Your task to perform on an android device: refresh tabs in the chrome app Image 0: 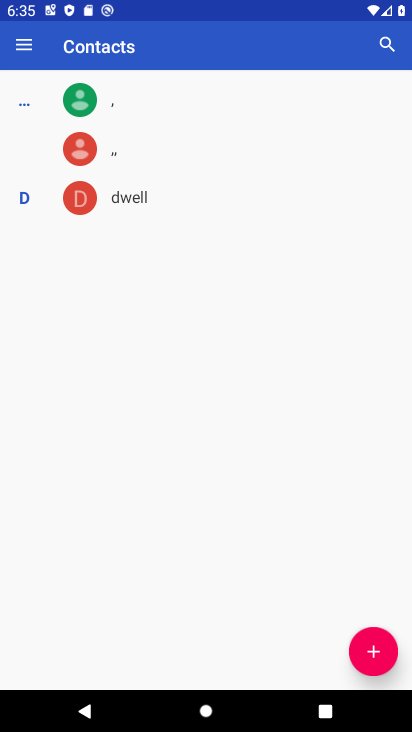
Step 0: press home button
Your task to perform on an android device: refresh tabs in the chrome app Image 1: 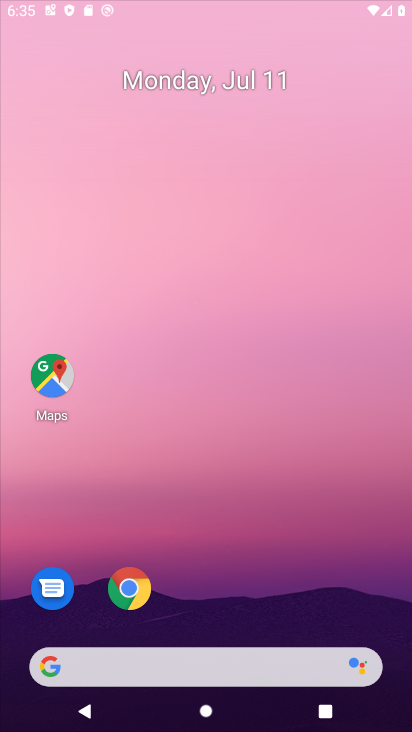
Step 1: drag from (384, 672) to (256, 1)
Your task to perform on an android device: refresh tabs in the chrome app Image 2: 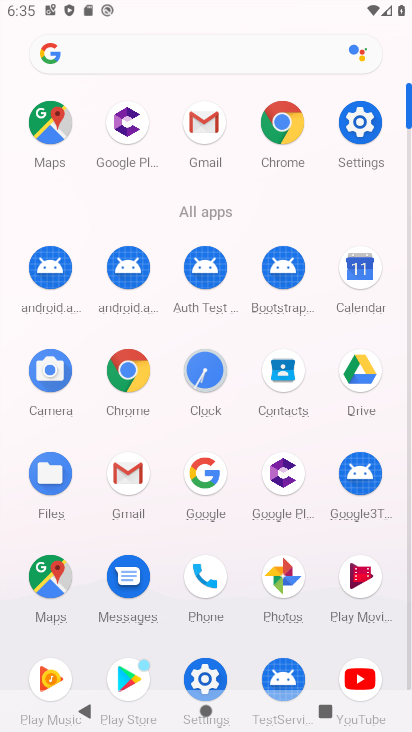
Step 2: click (278, 134)
Your task to perform on an android device: refresh tabs in the chrome app Image 3: 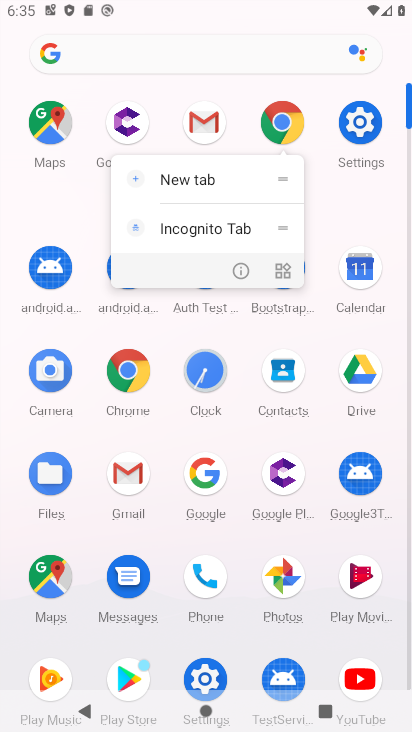
Step 3: click (278, 134)
Your task to perform on an android device: refresh tabs in the chrome app Image 4: 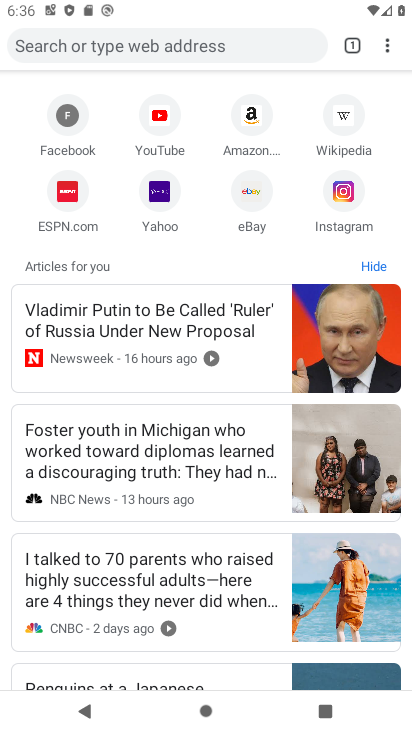
Step 4: click (388, 45)
Your task to perform on an android device: refresh tabs in the chrome app Image 5: 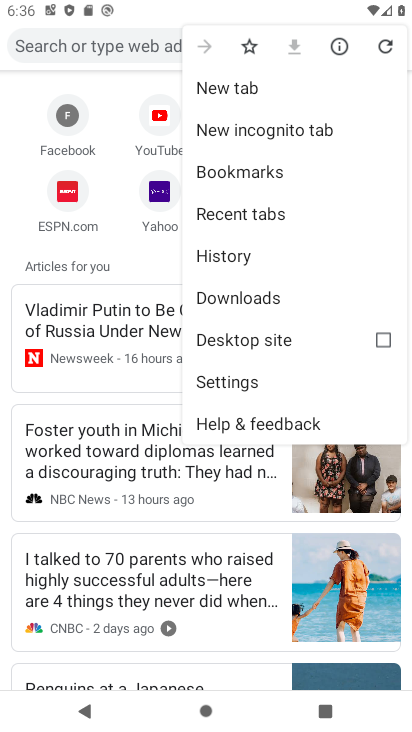
Step 5: click (385, 46)
Your task to perform on an android device: refresh tabs in the chrome app Image 6: 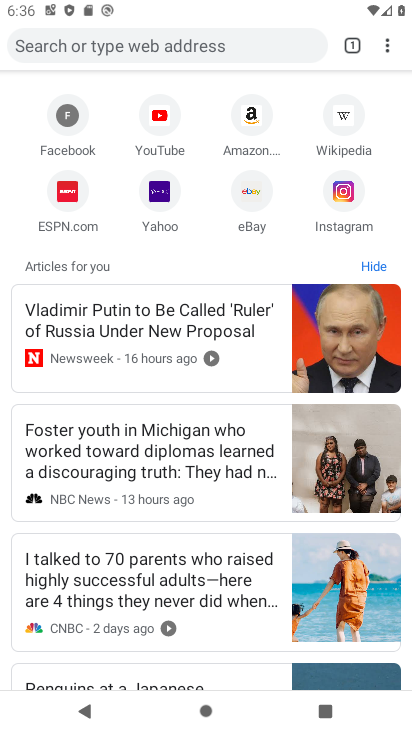
Step 6: task complete